Your task to perform on an android device: Open calendar and show me the first week of next month Image 0: 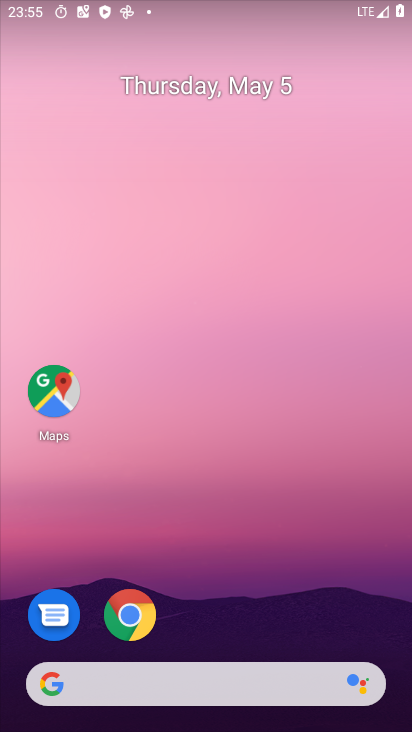
Step 0: drag from (240, 602) to (283, 71)
Your task to perform on an android device: Open calendar and show me the first week of next month Image 1: 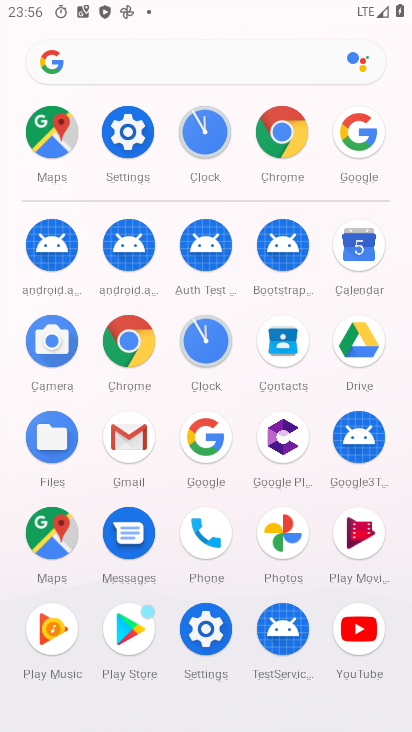
Step 1: click (357, 246)
Your task to perform on an android device: Open calendar and show me the first week of next month Image 2: 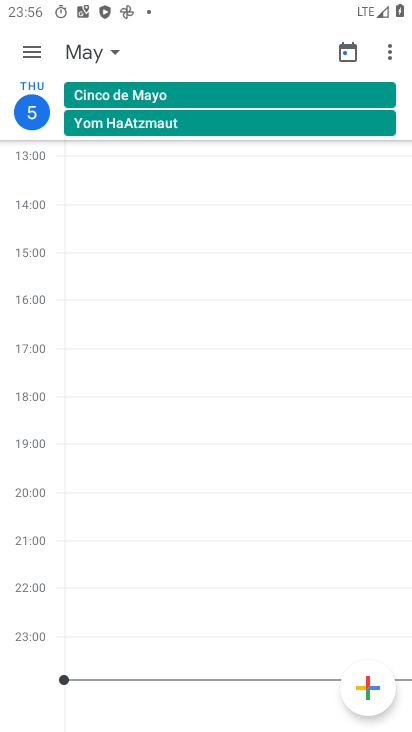
Step 2: click (105, 51)
Your task to perform on an android device: Open calendar and show me the first week of next month Image 3: 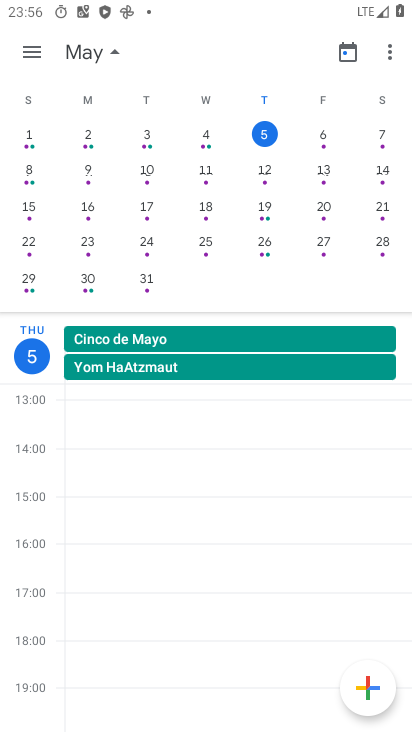
Step 3: drag from (334, 288) to (1, 256)
Your task to perform on an android device: Open calendar and show me the first week of next month Image 4: 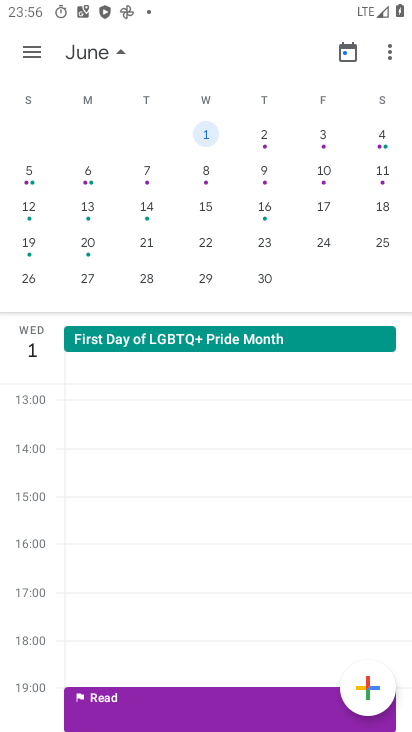
Step 4: click (326, 138)
Your task to perform on an android device: Open calendar and show me the first week of next month Image 5: 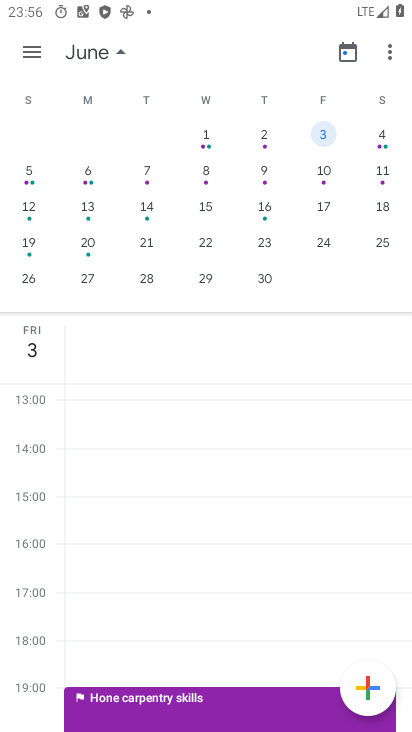
Step 5: task complete